Your task to perform on an android device: Search for pizza restaurants on Maps Image 0: 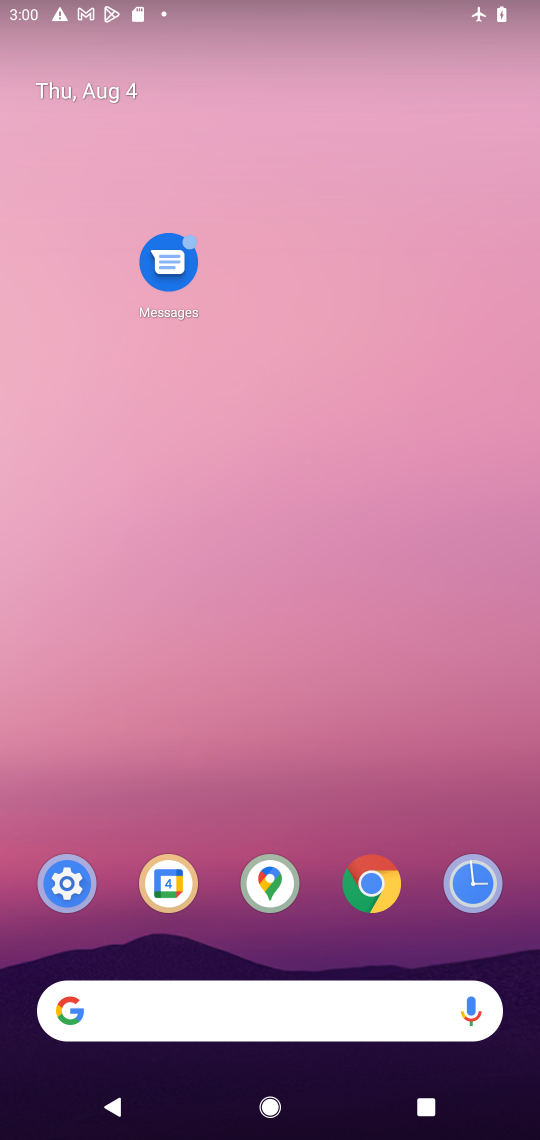
Step 0: drag from (309, 936) to (297, 166)
Your task to perform on an android device: Search for pizza restaurants on Maps Image 1: 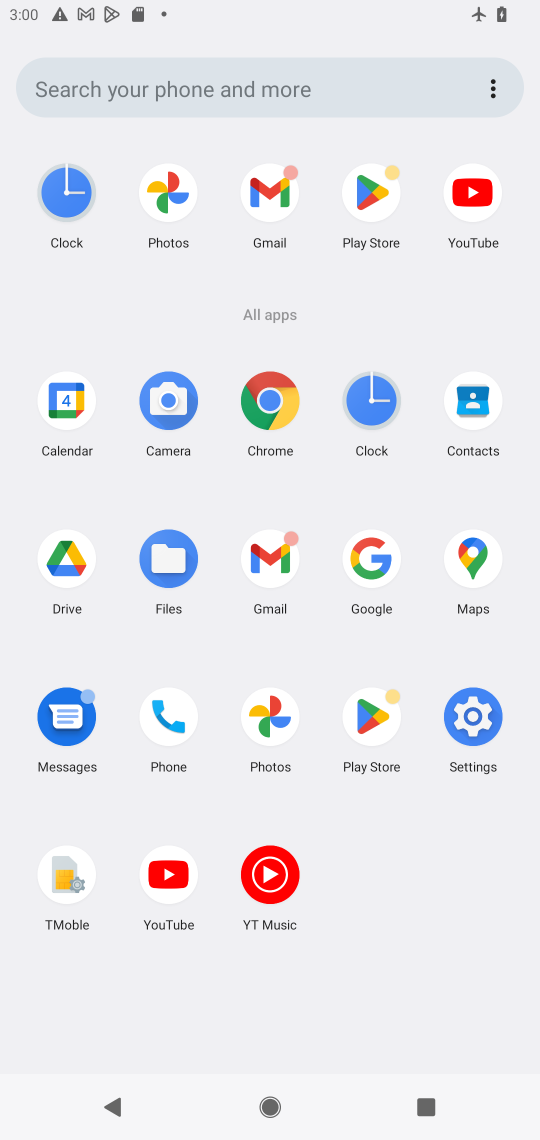
Step 1: click (371, 723)
Your task to perform on an android device: Search for pizza restaurants on Maps Image 2: 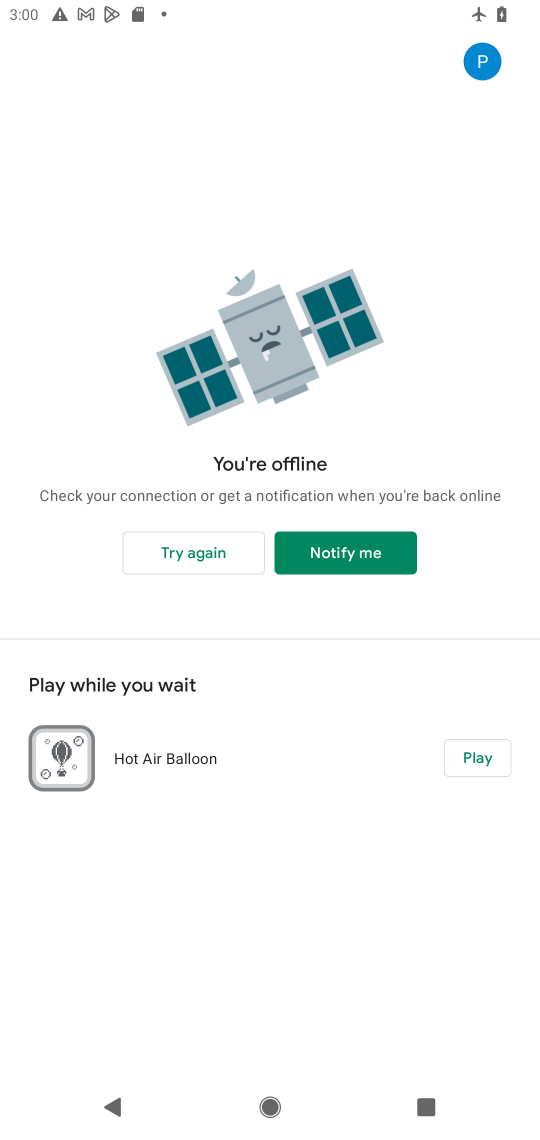
Step 2: click (205, 550)
Your task to perform on an android device: Search for pizza restaurants on Maps Image 3: 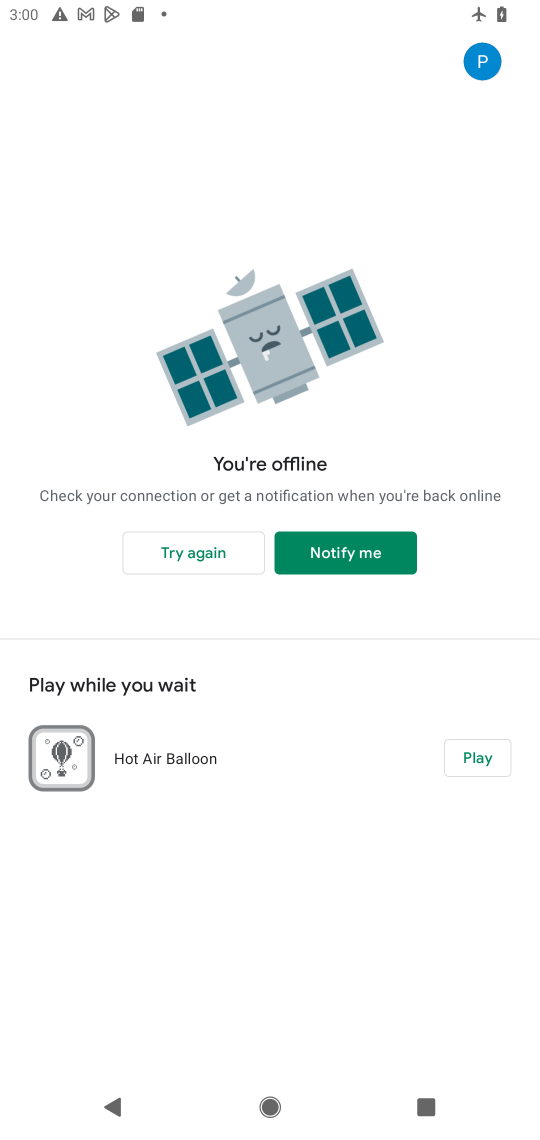
Step 3: task complete